Your task to perform on an android device: Go to Yahoo.com Image 0: 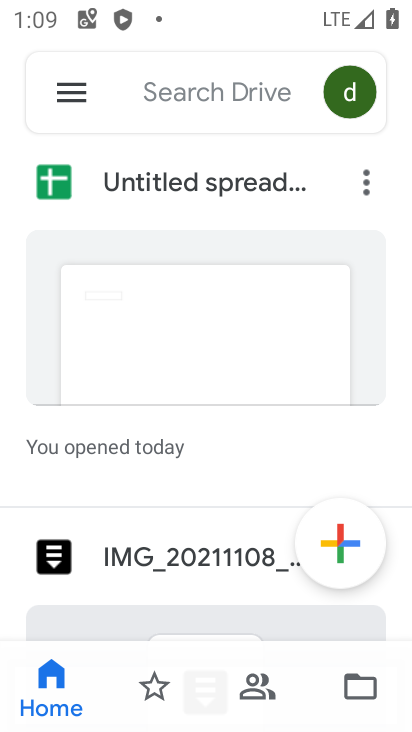
Step 0: press home button
Your task to perform on an android device: Go to Yahoo.com Image 1: 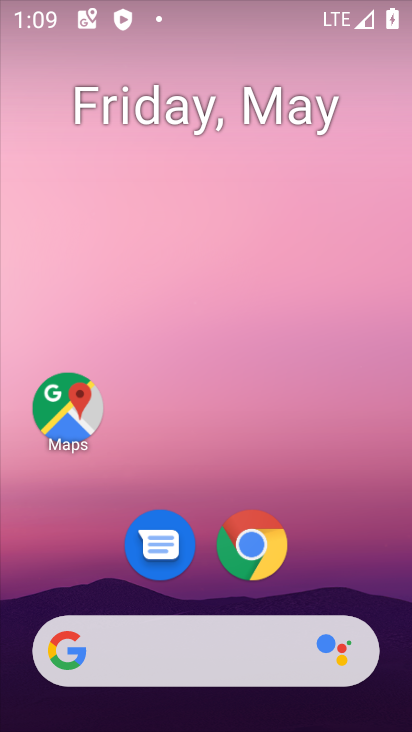
Step 1: click (264, 516)
Your task to perform on an android device: Go to Yahoo.com Image 2: 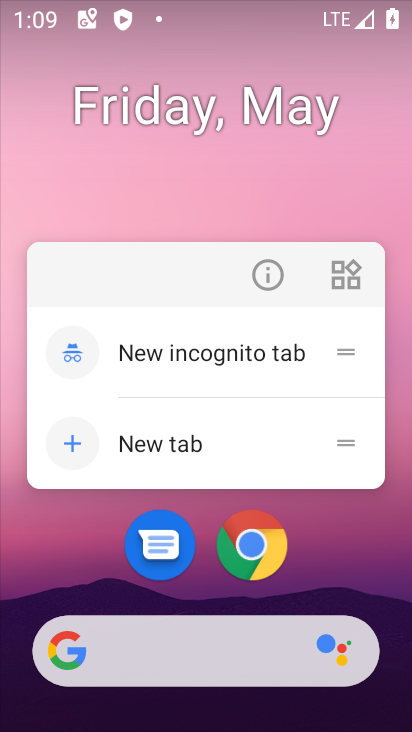
Step 2: click (262, 537)
Your task to perform on an android device: Go to Yahoo.com Image 3: 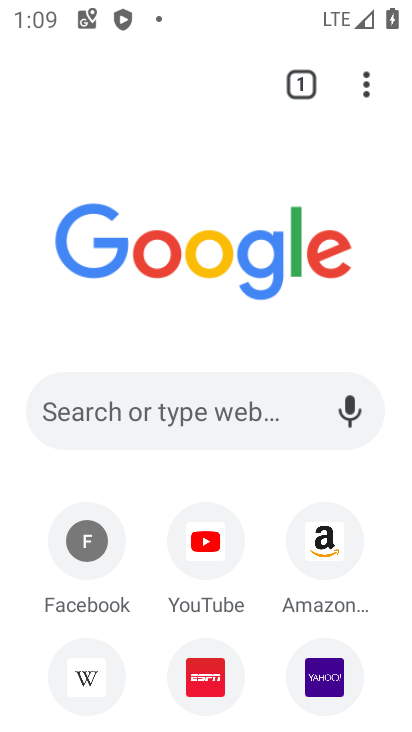
Step 3: click (336, 686)
Your task to perform on an android device: Go to Yahoo.com Image 4: 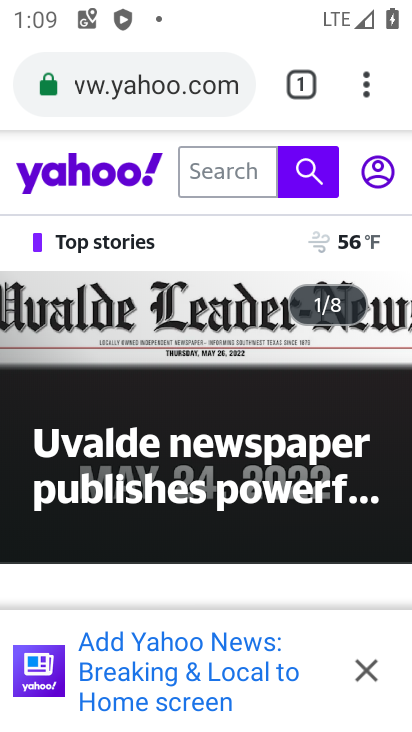
Step 4: task complete